Your task to perform on an android device: Go to Maps Image 0: 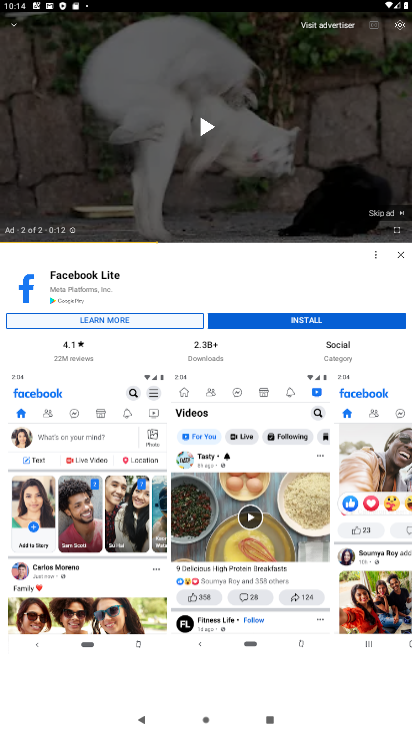
Step 0: press home button
Your task to perform on an android device: Go to Maps Image 1: 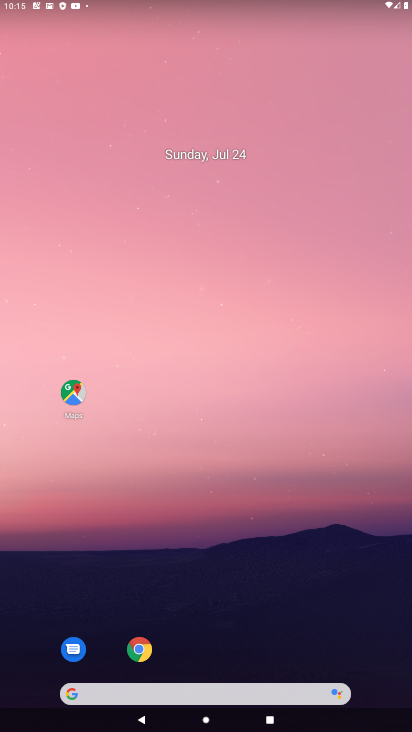
Step 1: drag from (244, 406) to (155, 19)
Your task to perform on an android device: Go to Maps Image 2: 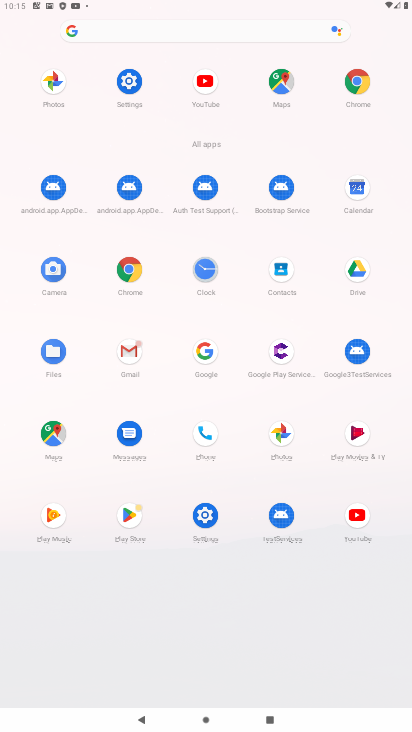
Step 2: click (49, 432)
Your task to perform on an android device: Go to Maps Image 3: 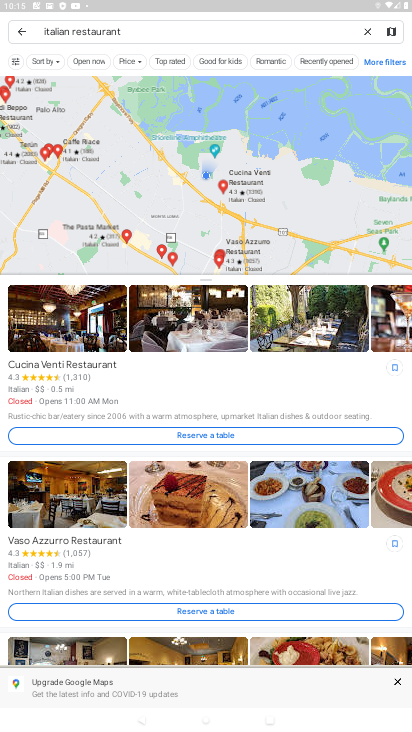
Step 3: task complete